Your task to perform on an android device: Open network settings Image 0: 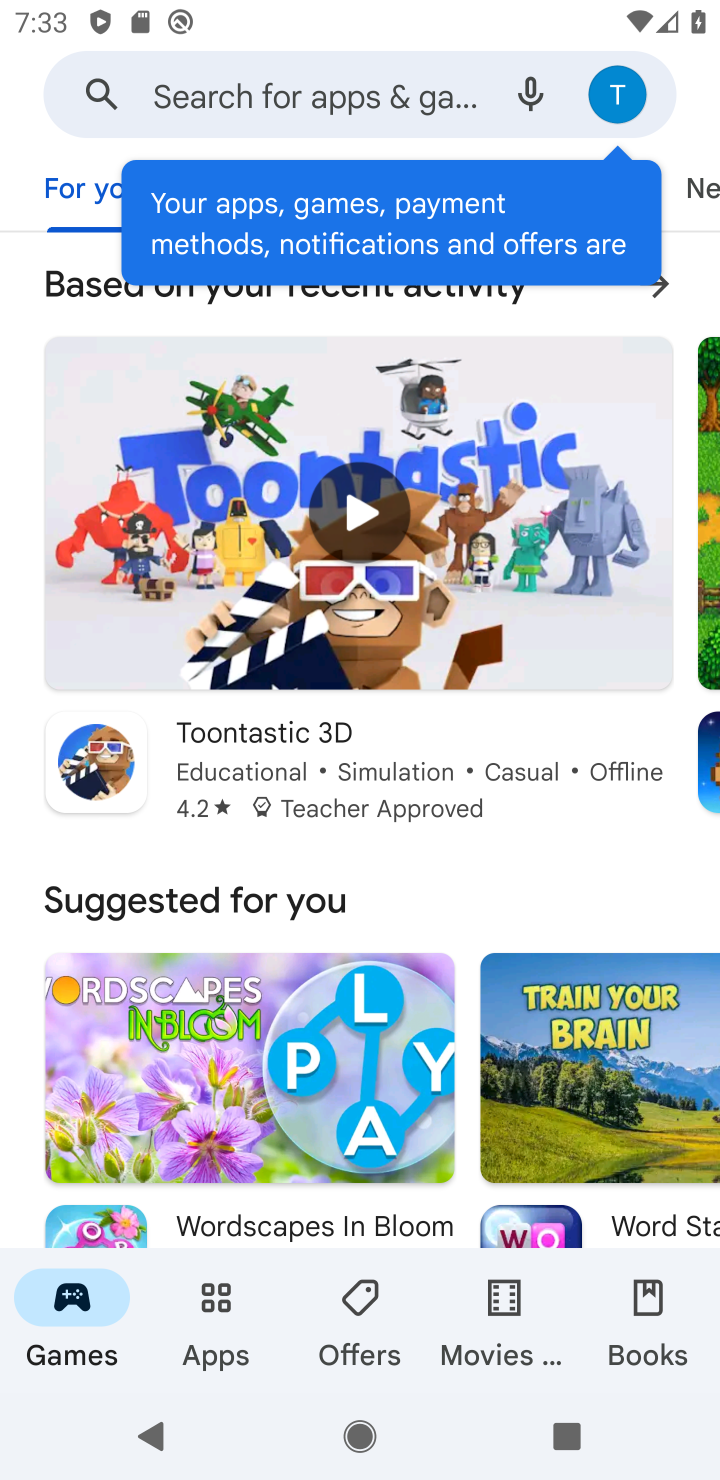
Step 0: press home button
Your task to perform on an android device: Open network settings Image 1: 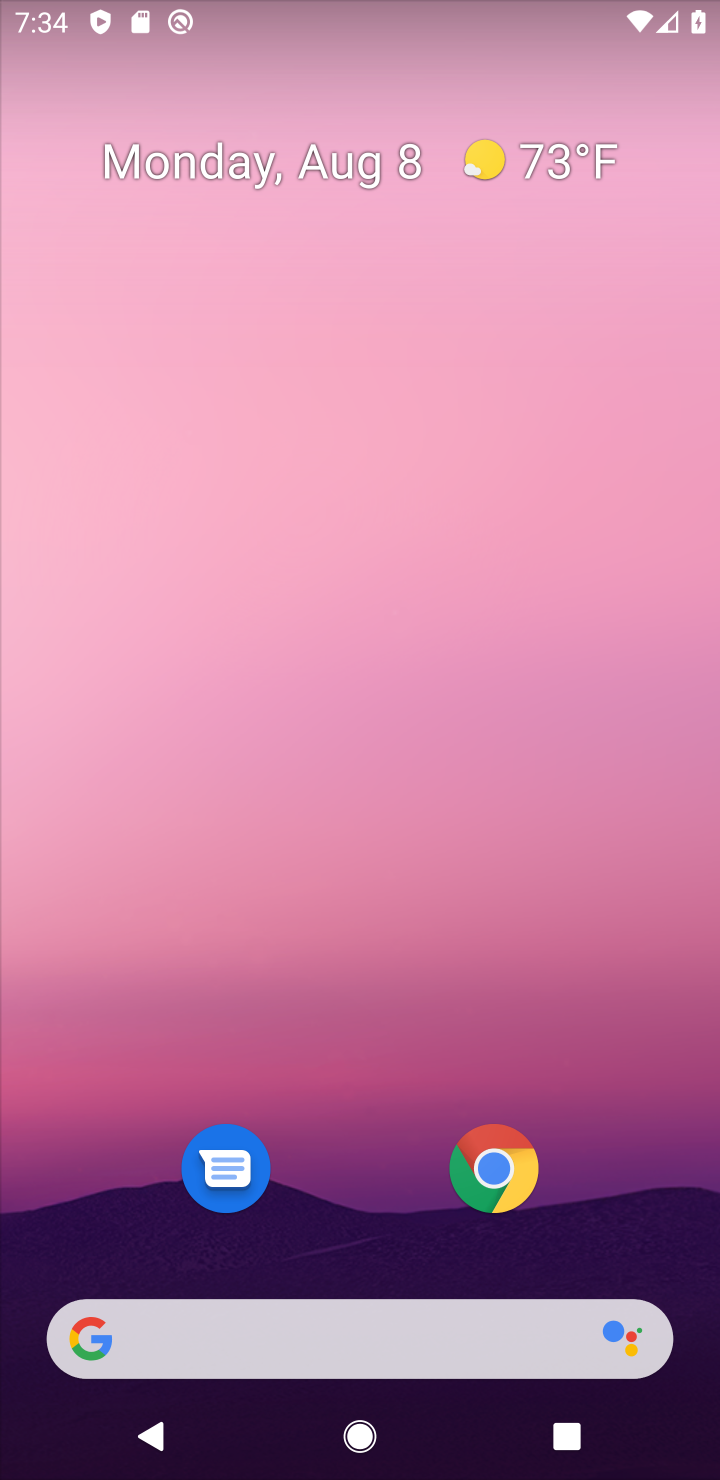
Step 1: drag from (342, 1335) to (581, 177)
Your task to perform on an android device: Open network settings Image 2: 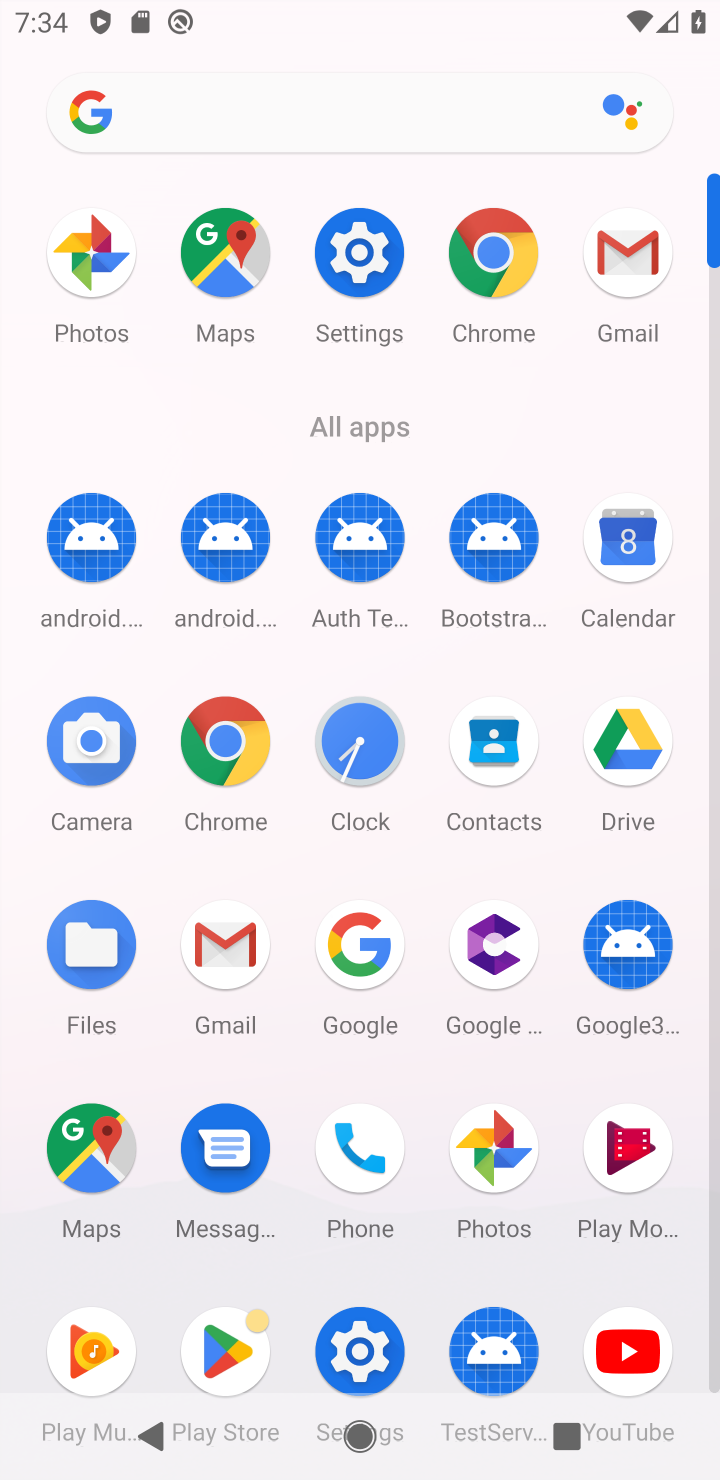
Step 2: click (369, 249)
Your task to perform on an android device: Open network settings Image 3: 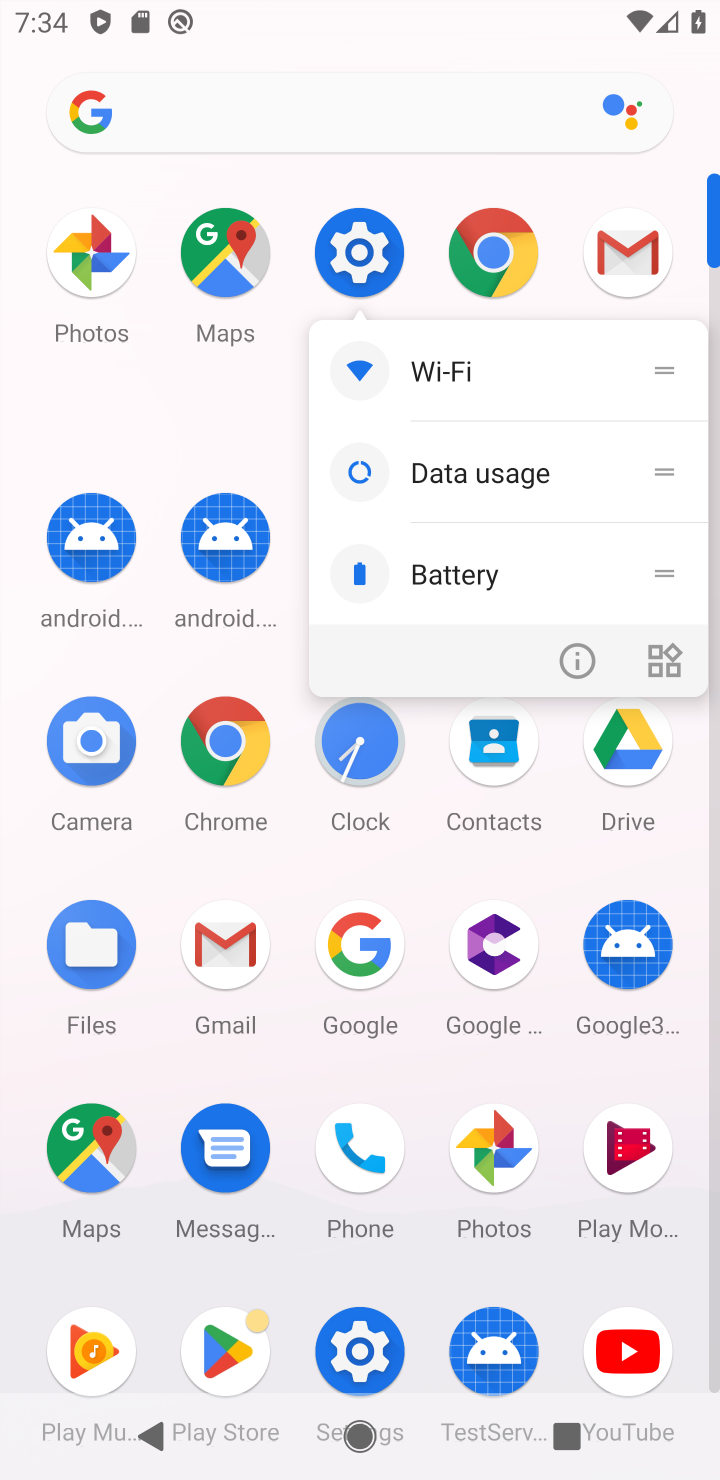
Step 3: click (358, 256)
Your task to perform on an android device: Open network settings Image 4: 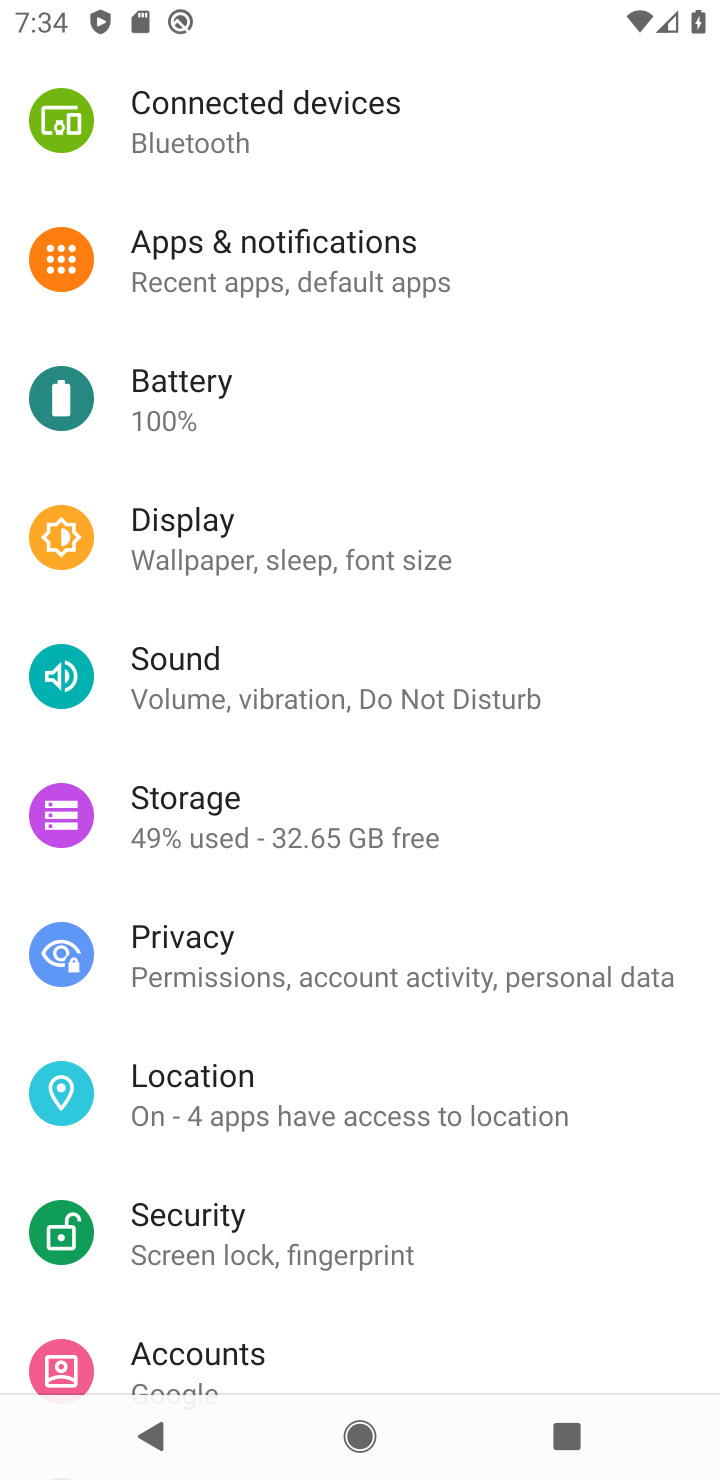
Step 4: drag from (535, 195) to (481, 1063)
Your task to perform on an android device: Open network settings Image 5: 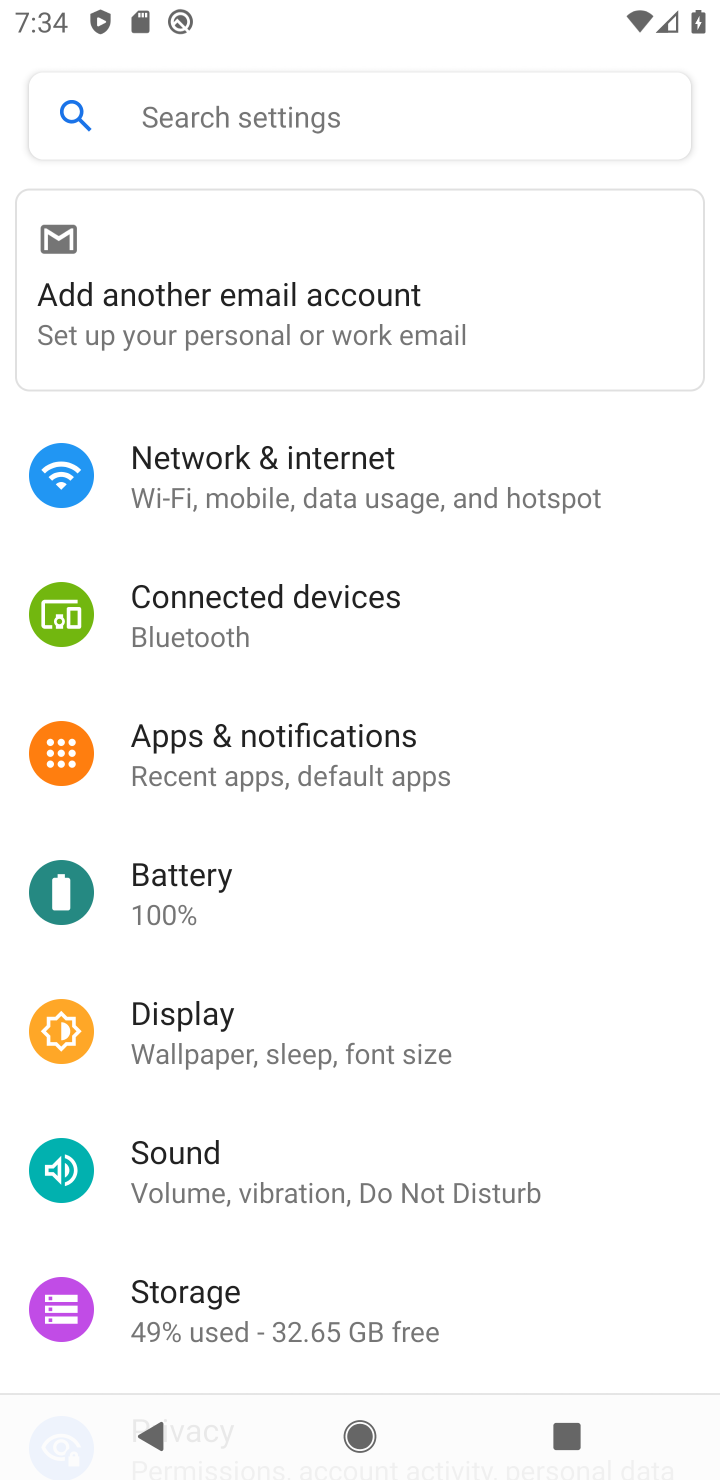
Step 5: click (312, 454)
Your task to perform on an android device: Open network settings Image 6: 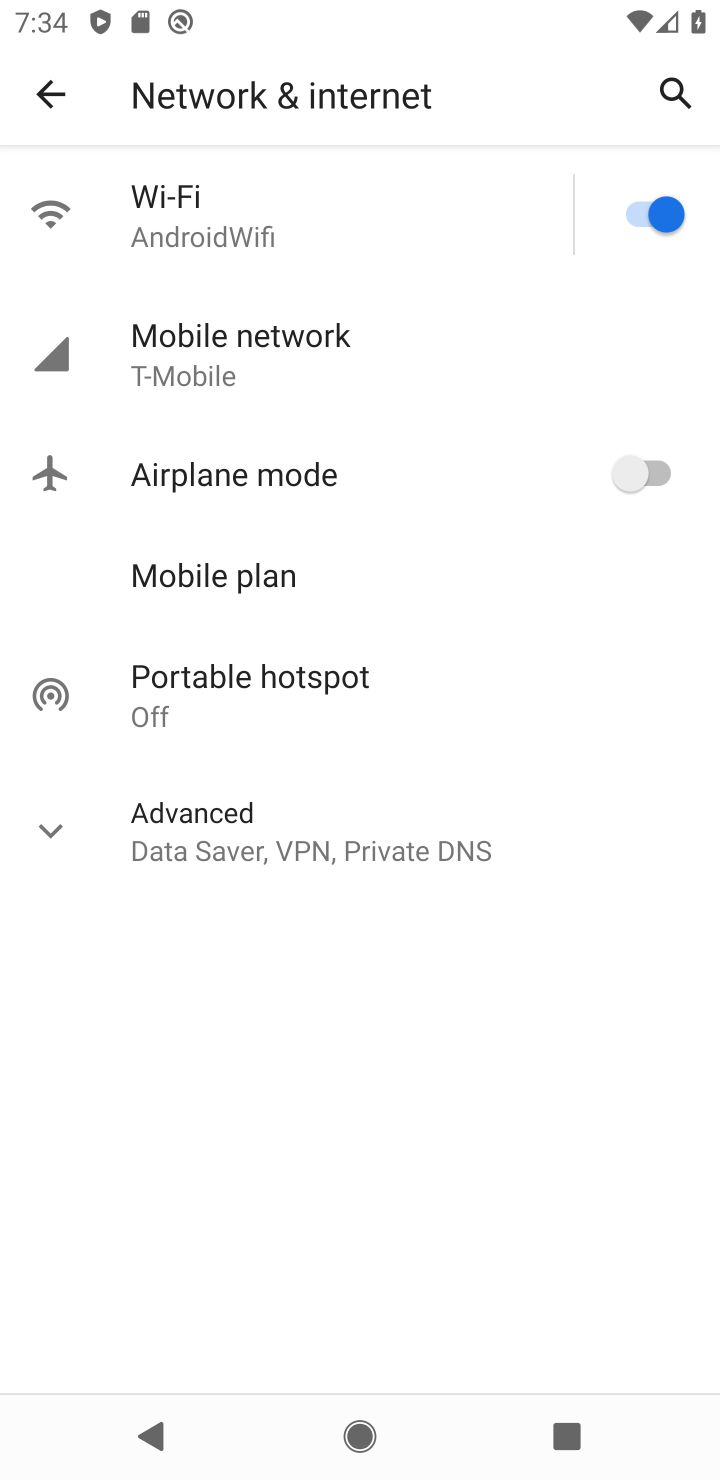
Step 6: click (208, 362)
Your task to perform on an android device: Open network settings Image 7: 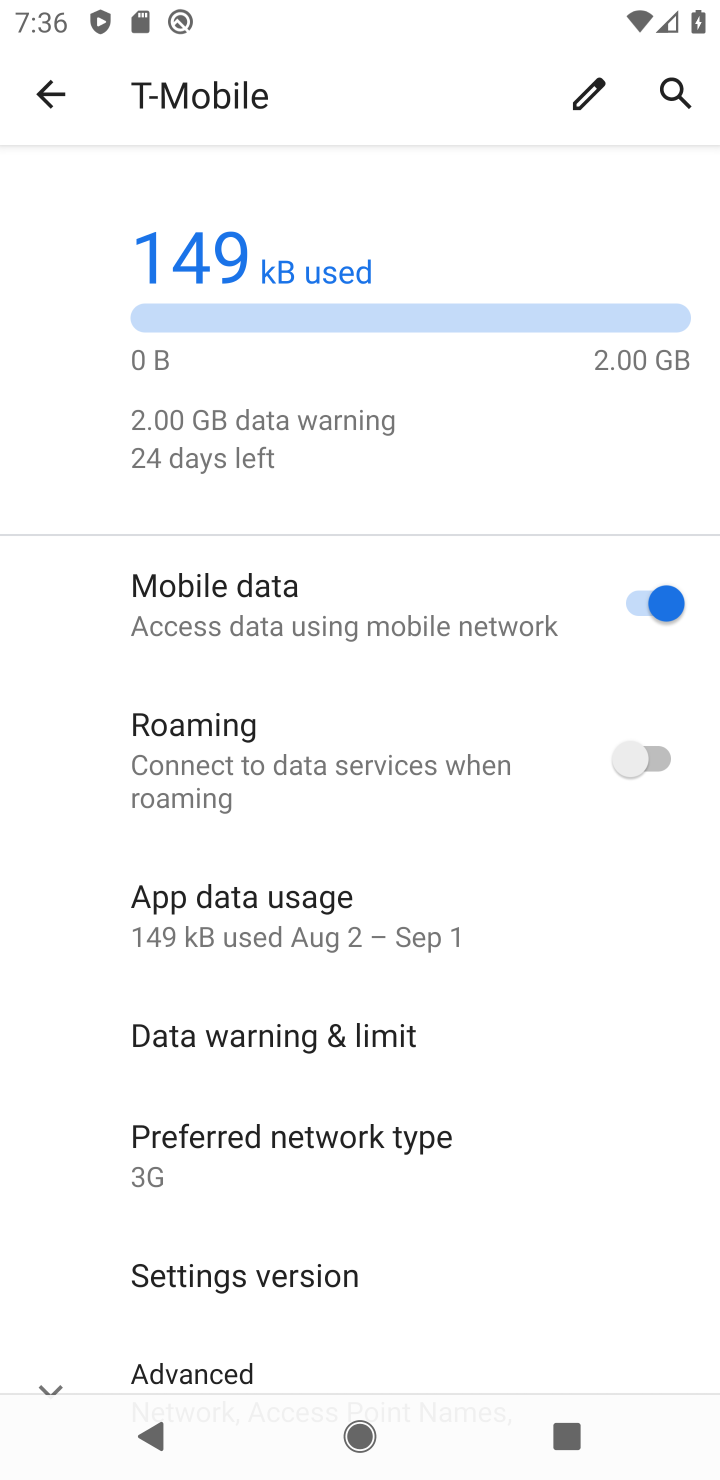
Step 7: task complete